Your task to perform on an android device: Open Google Maps Image 0: 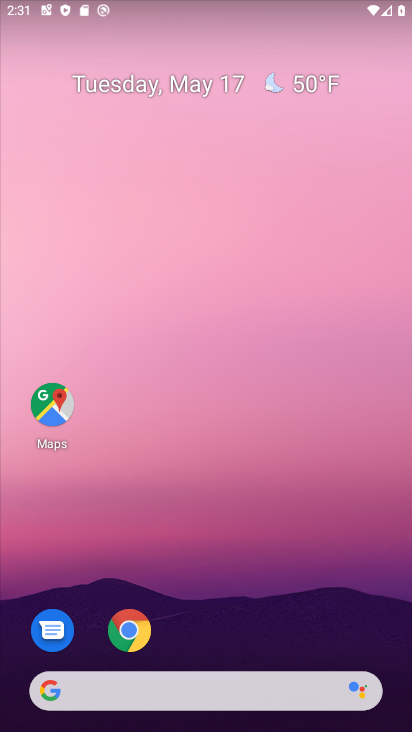
Step 0: click (48, 397)
Your task to perform on an android device: Open Google Maps Image 1: 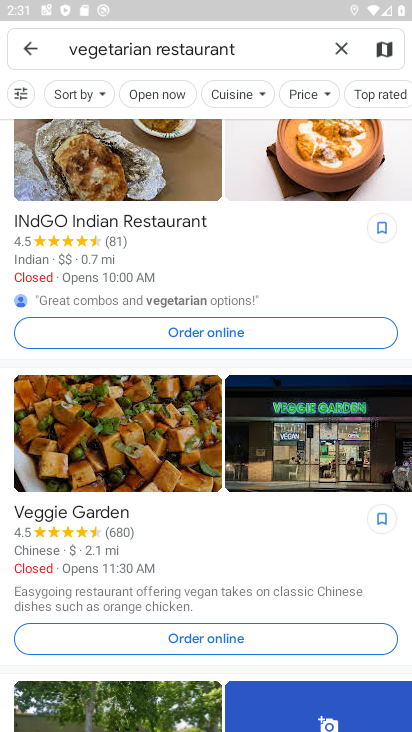
Step 1: click (337, 47)
Your task to perform on an android device: Open Google Maps Image 2: 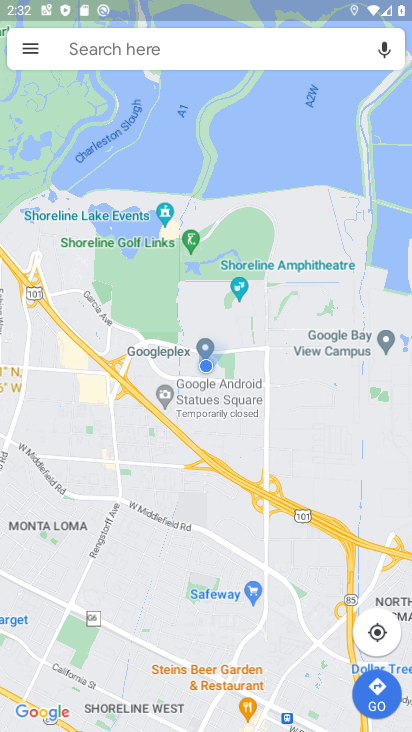
Step 2: task complete